Your task to perform on an android device: Go to Maps Image 0: 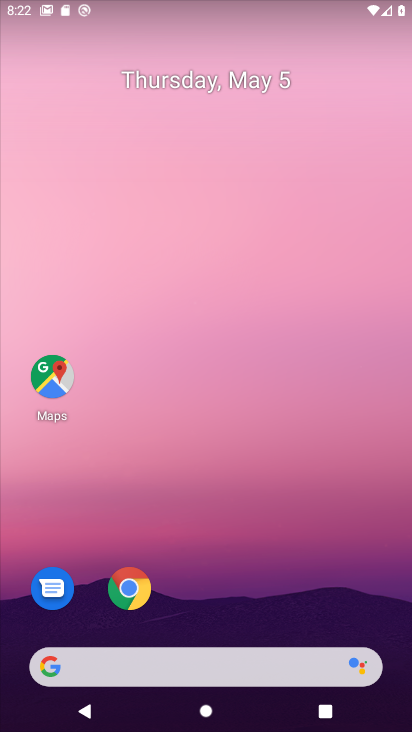
Step 0: click (59, 371)
Your task to perform on an android device: Go to Maps Image 1: 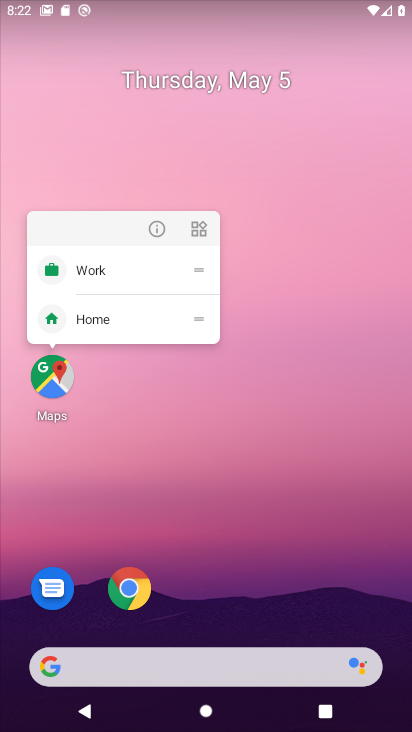
Step 1: click (44, 385)
Your task to perform on an android device: Go to Maps Image 2: 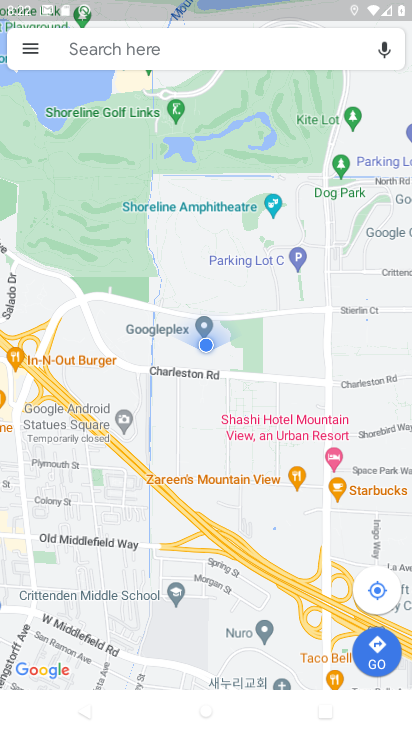
Step 2: drag from (193, 437) to (215, 251)
Your task to perform on an android device: Go to Maps Image 3: 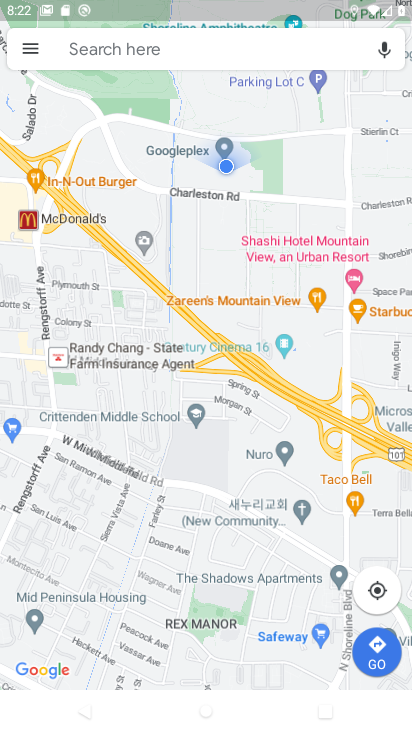
Step 3: click (21, 47)
Your task to perform on an android device: Go to Maps Image 4: 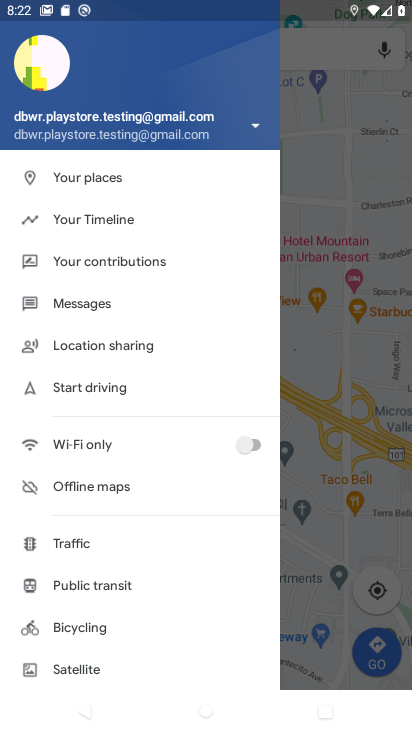
Step 4: task complete